Your task to perform on an android device: uninstall "Roku - Official Remote Control" Image 0: 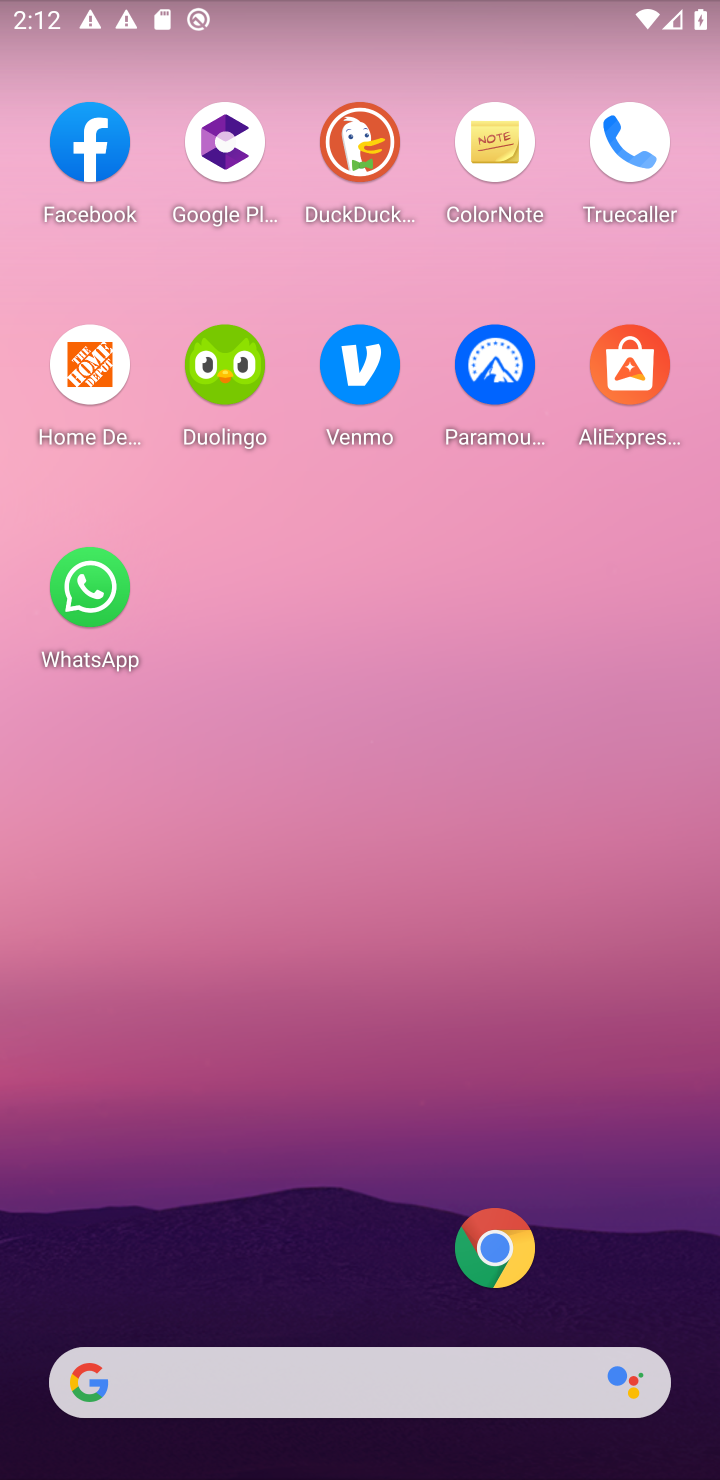
Step 0: drag from (293, 1009) to (328, 578)
Your task to perform on an android device: uninstall "Roku - Official Remote Control" Image 1: 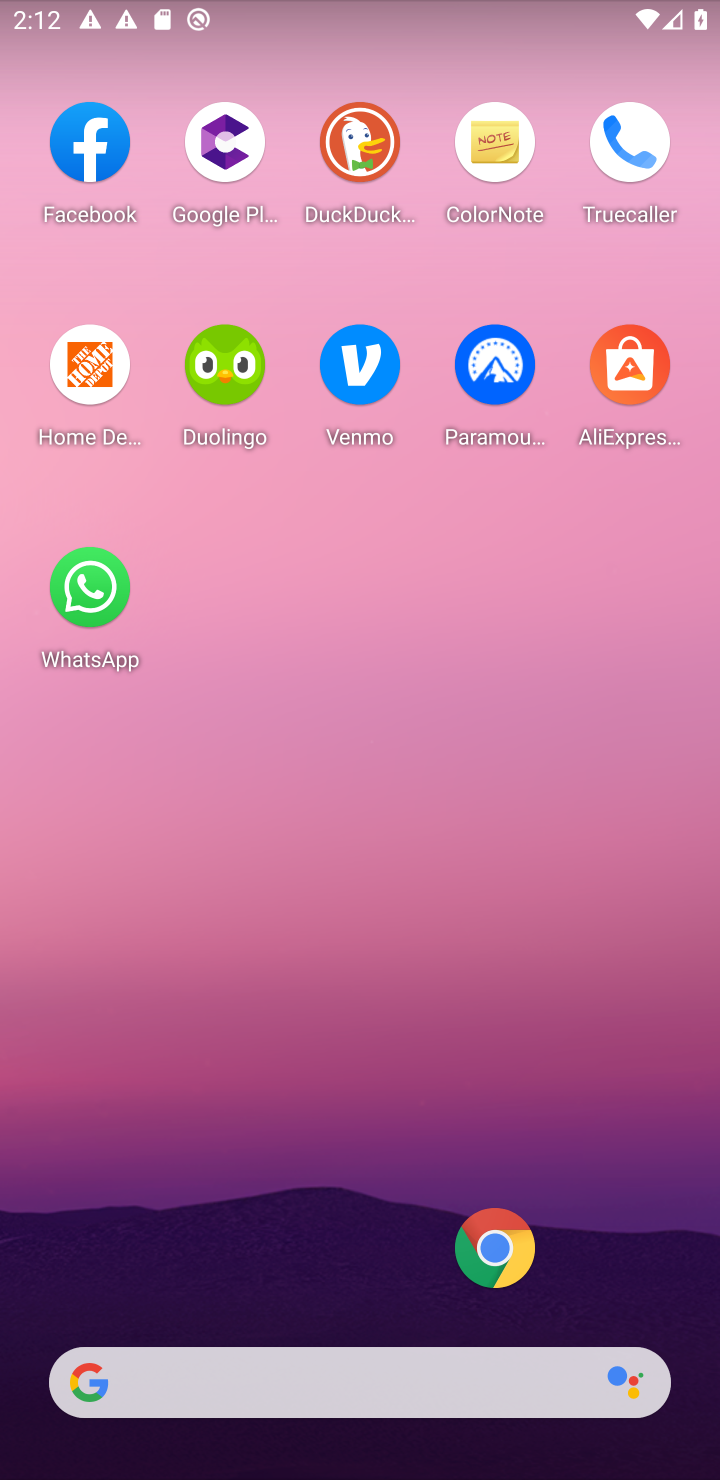
Step 1: drag from (355, 1110) to (373, 215)
Your task to perform on an android device: uninstall "Roku - Official Remote Control" Image 2: 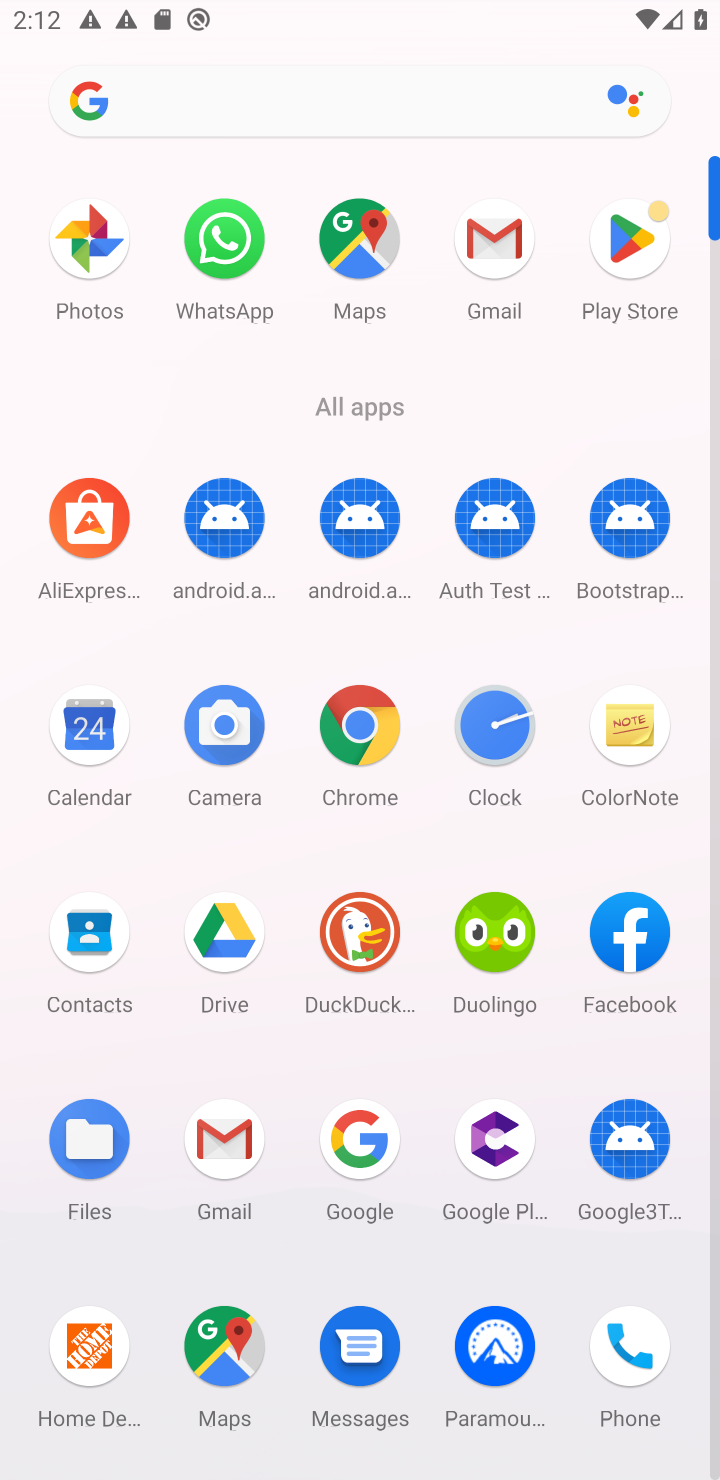
Step 2: click (637, 228)
Your task to perform on an android device: uninstall "Roku - Official Remote Control" Image 3: 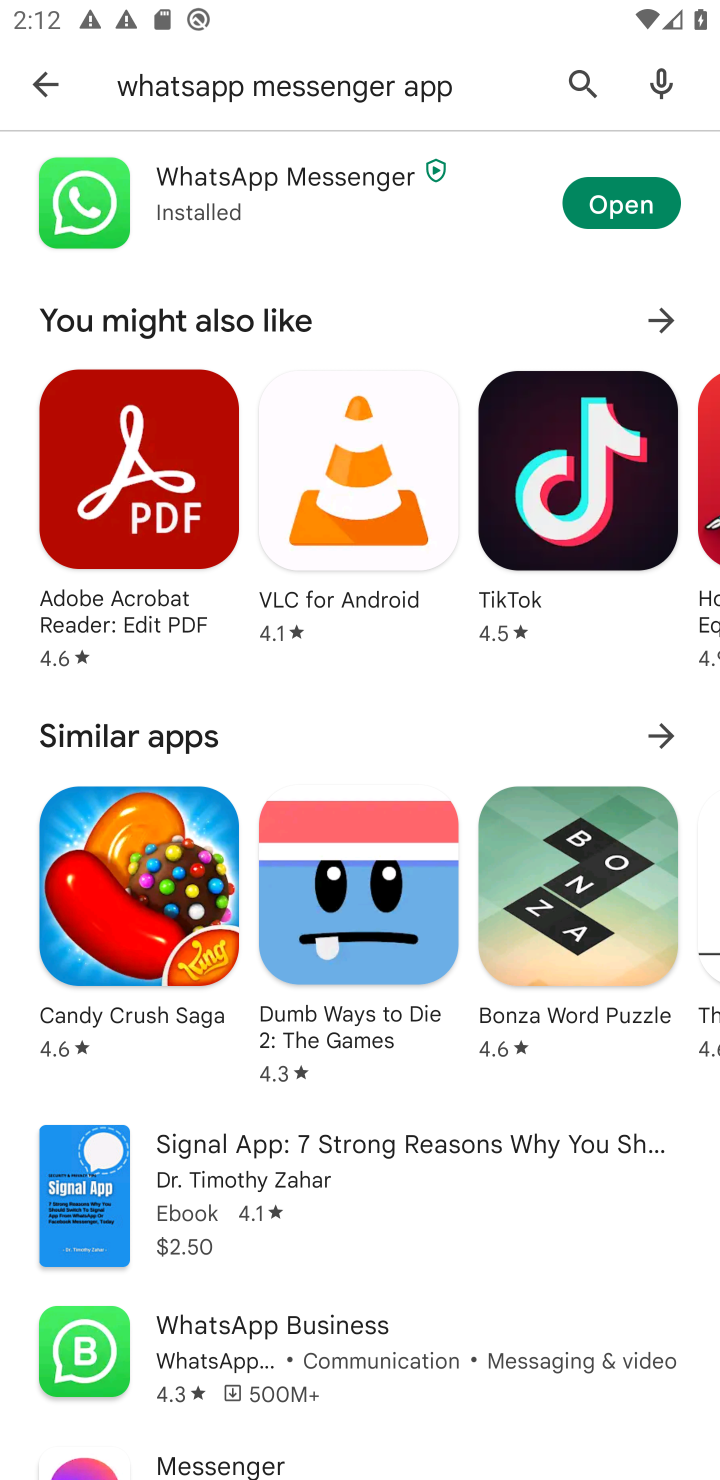
Step 3: click (564, 89)
Your task to perform on an android device: uninstall "Roku - Official Remote Control" Image 4: 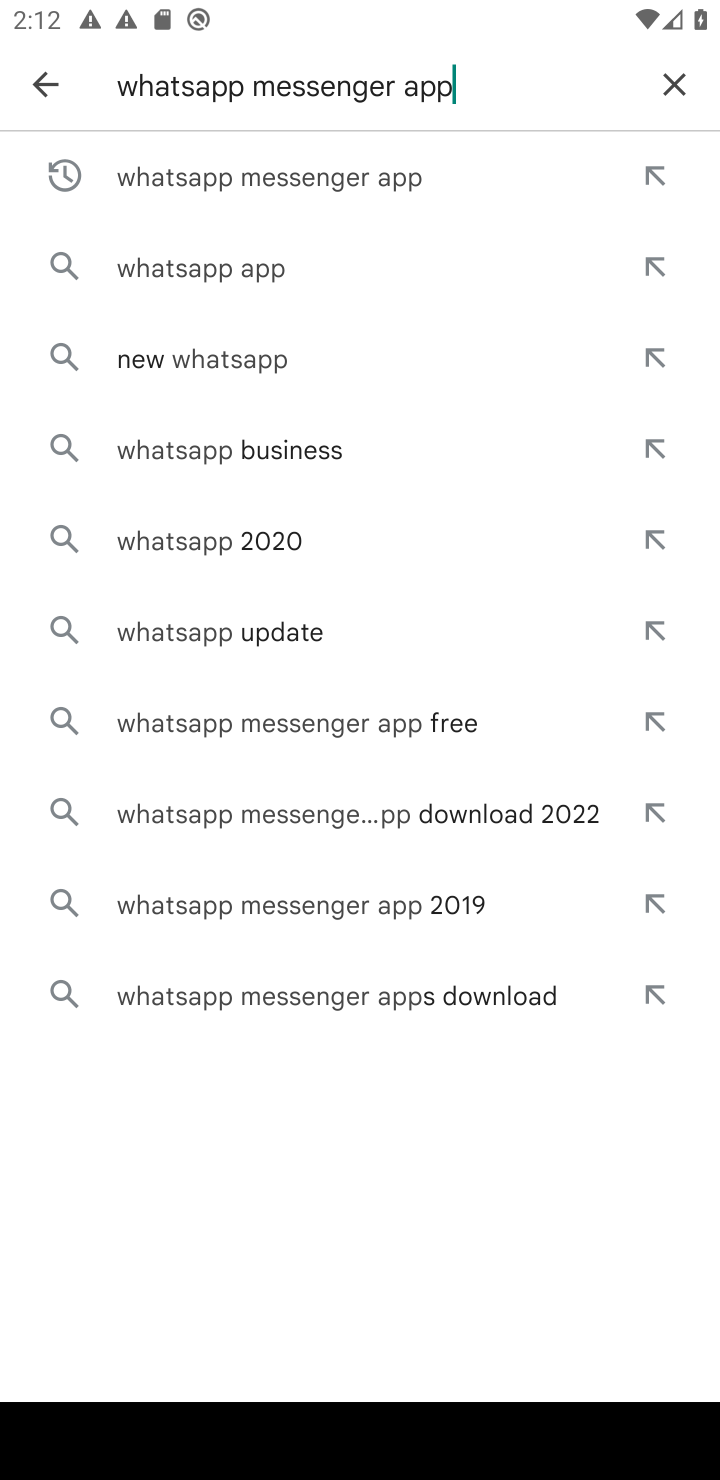
Step 4: click (658, 90)
Your task to perform on an android device: uninstall "Roku - Official Remote Control" Image 5: 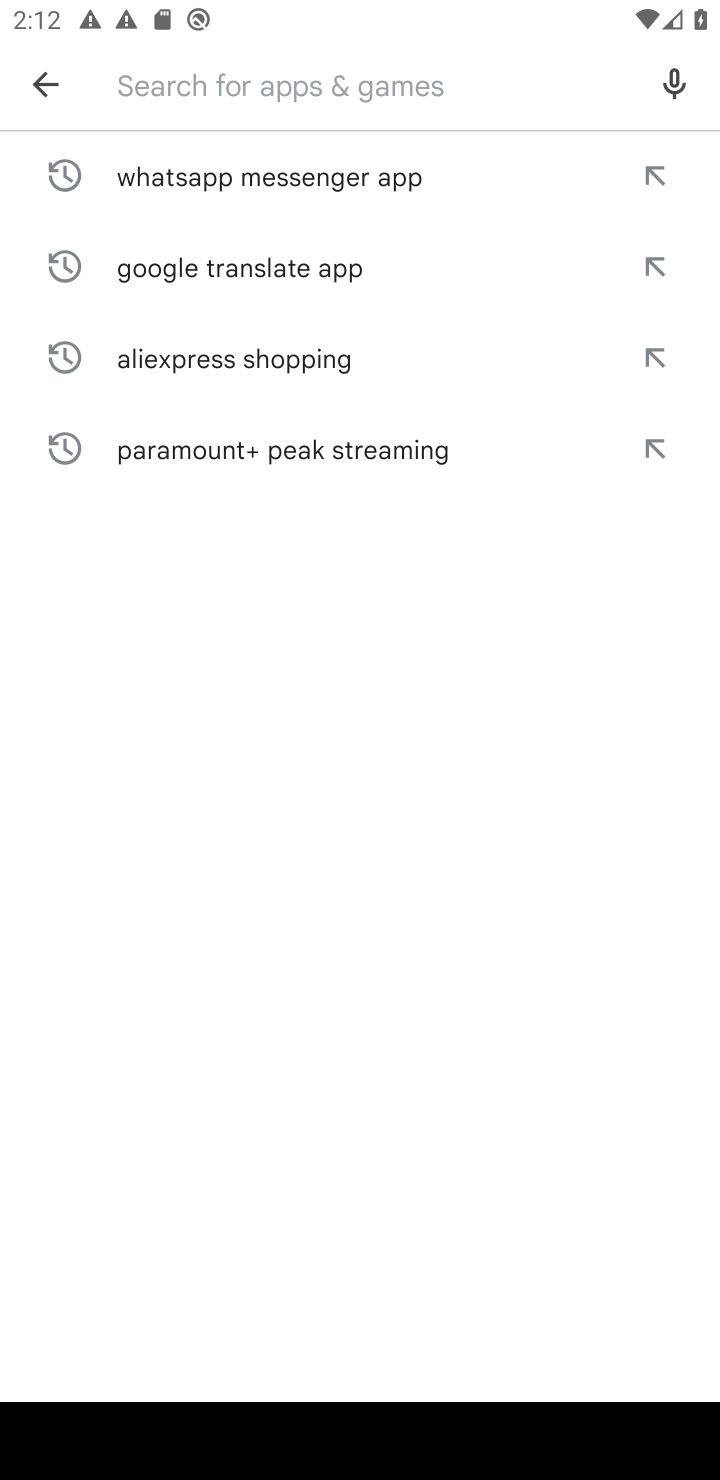
Step 5: click (355, 80)
Your task to perform on an android device: uninstall "Roku - Official Remote Control" Image 6: 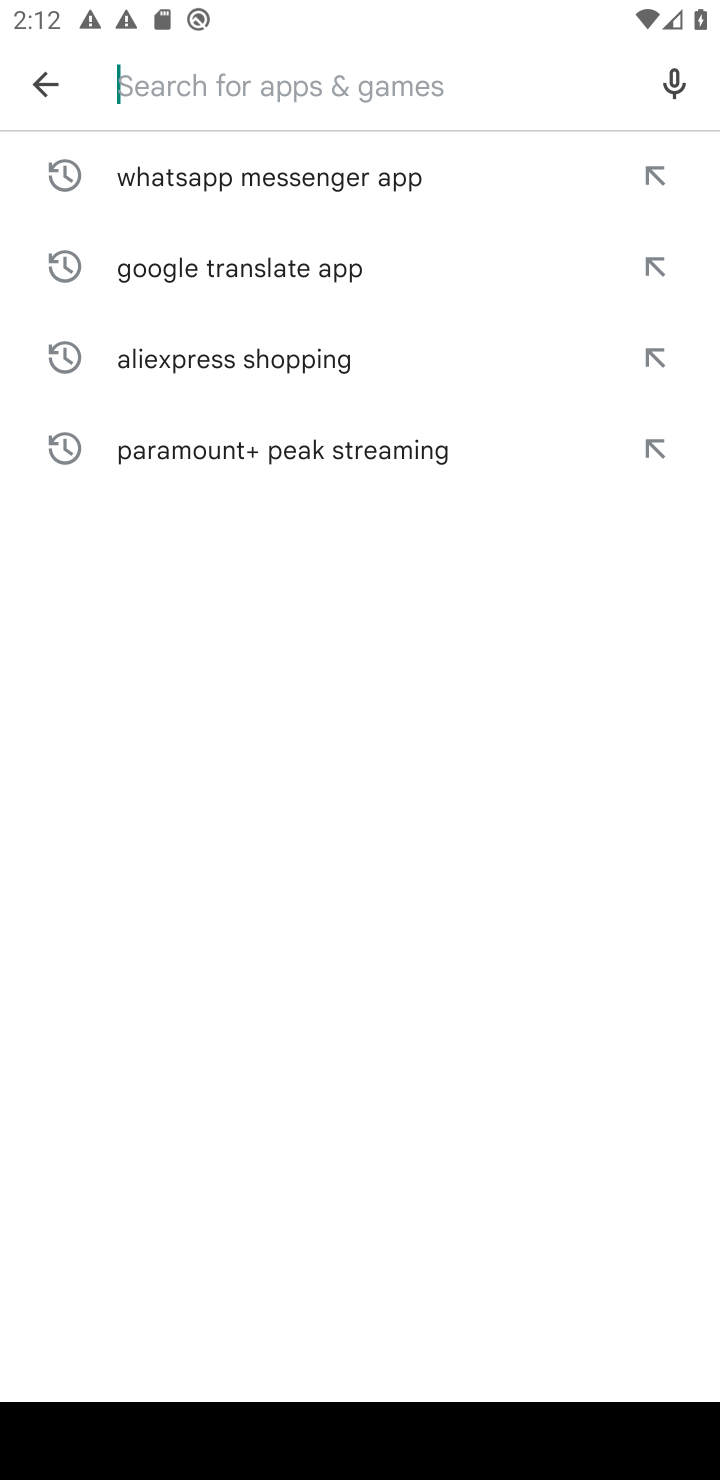
Step 6: type "Roku "
Your task to perform on an android device: uninstall "Roku - Official Remote Control" Image 7: 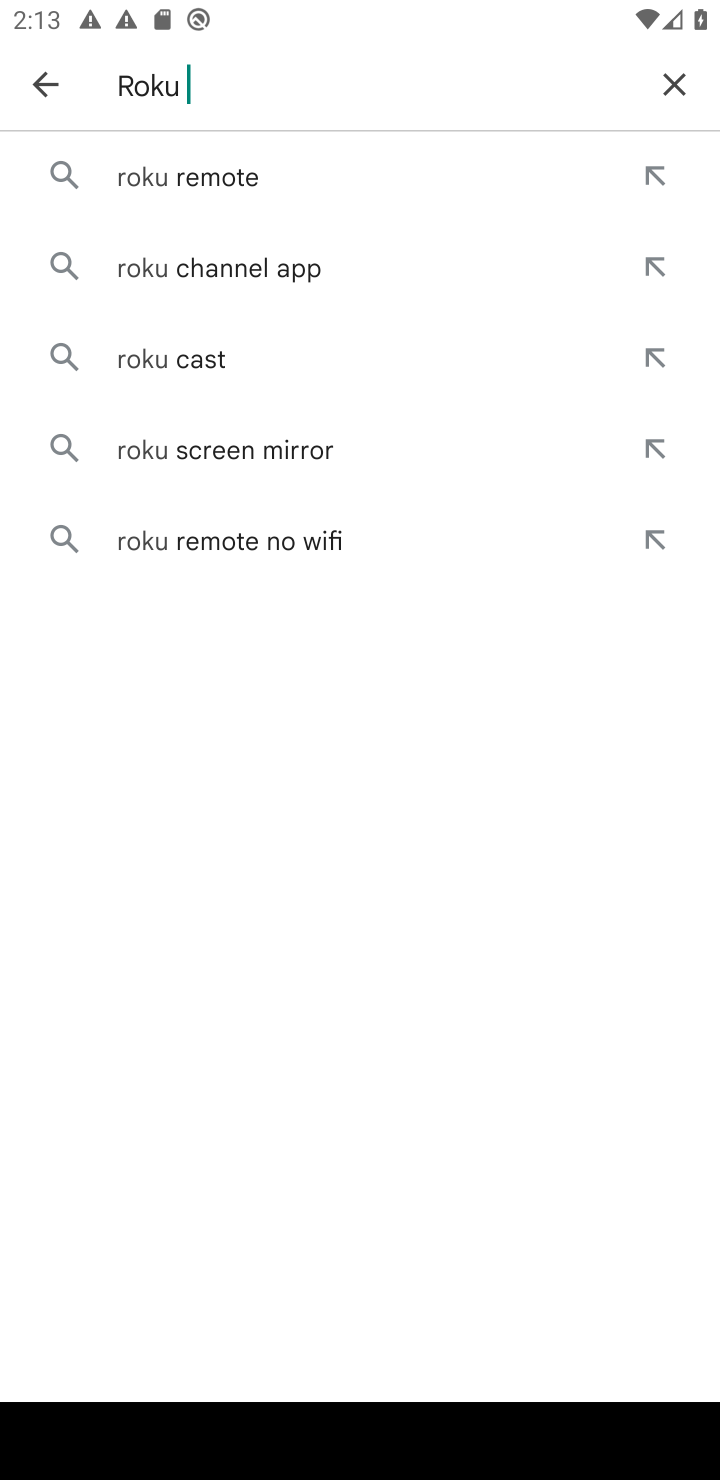
Step 7: click (250, 186)
Your task to perform on an android device: uninstall "Roku - Official Remote Control" Image 8: 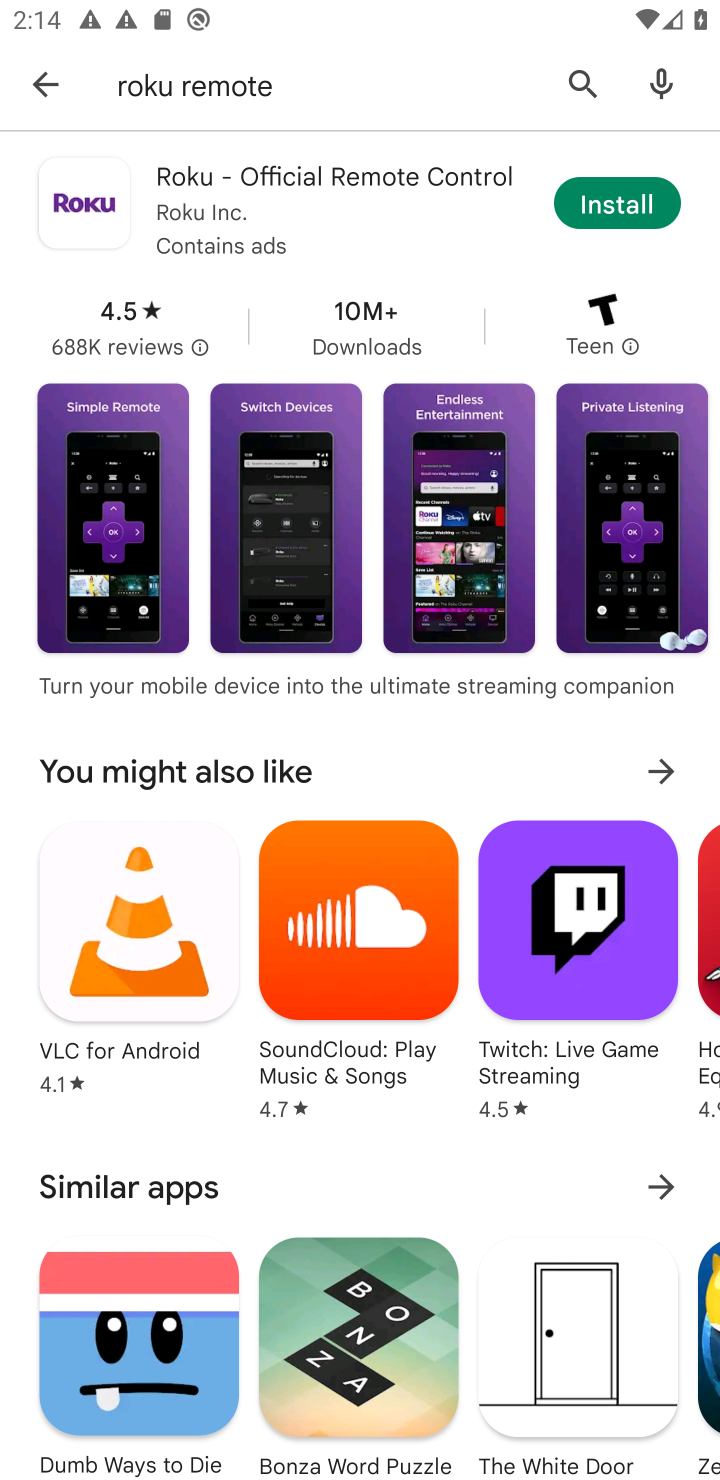
Step 8: task complete